Your task to perform on an android device: Open location settings Image 0: 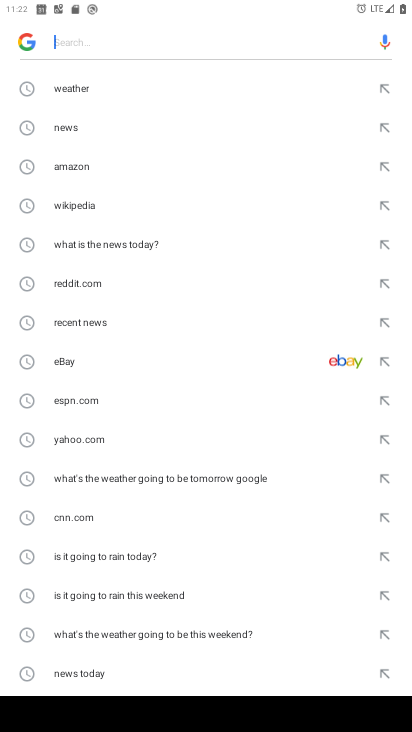
Step 0: press home button
Your task to perform on an android device: Open location settings Image 1: 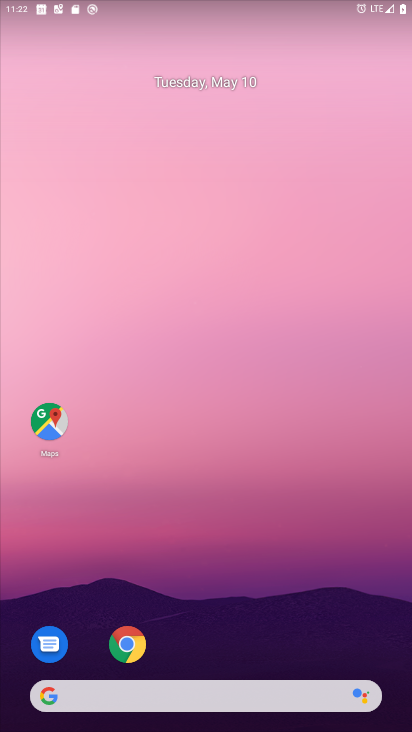
Step 1: drag from (328, 564) to (243, 58)
Your task to perform on an android device: Open location settings Image 2: 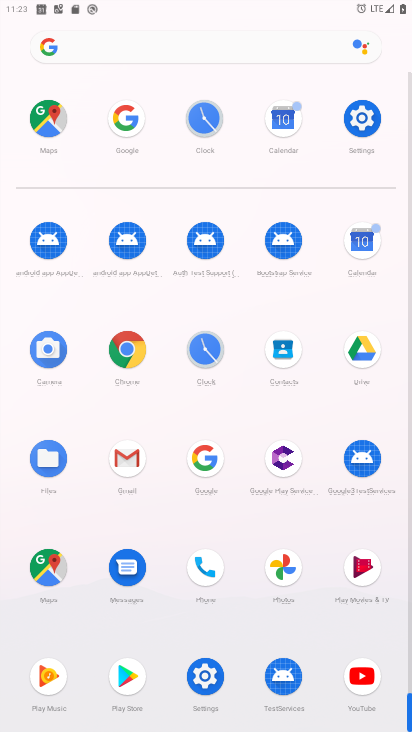
Step 2: click (359, 140)
Your task to perform on an android device: Open location settings Image 3: 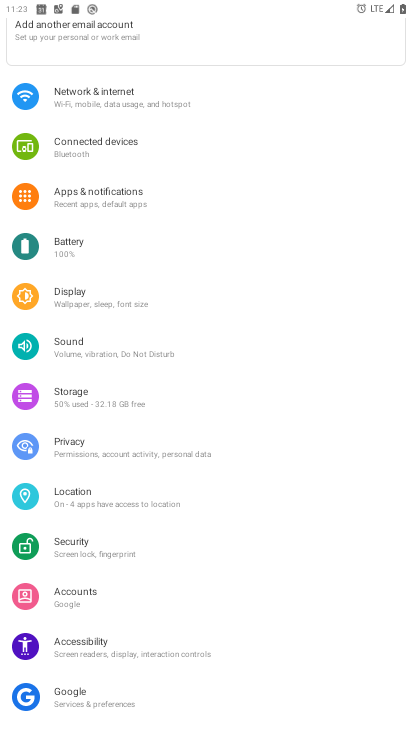
Step 3: drag from (239, 643) to (254, 479)
Your task to perform on an android device: Open location settings Image 4: 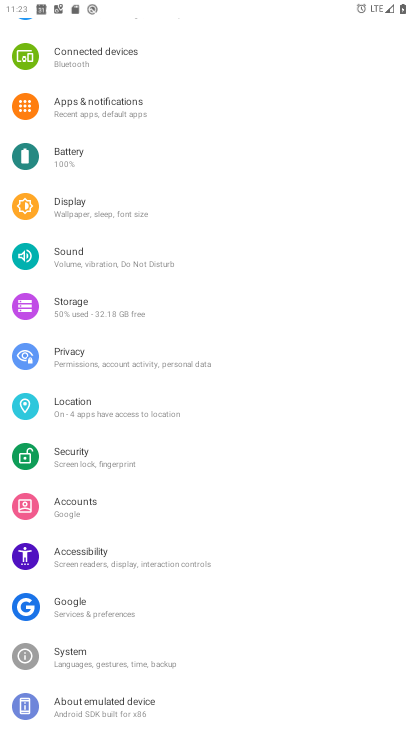
Step 4: click (189, 398)
Your task to perform on an android device: Open location settings Image 5: 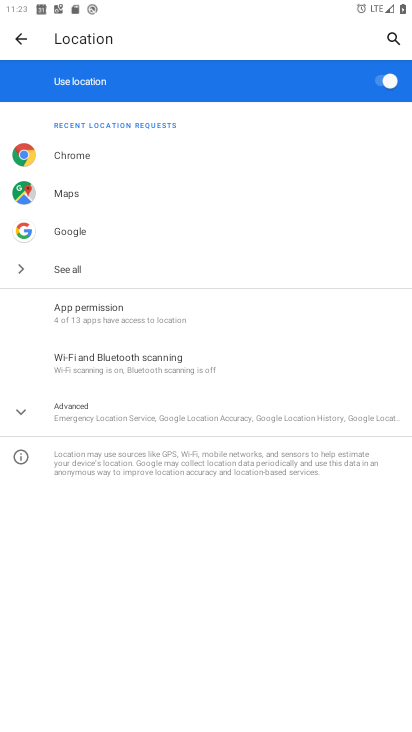
Step 5: task complete